Your task to perform on an android device: Search for pizza restaurants on Maps Image 0: 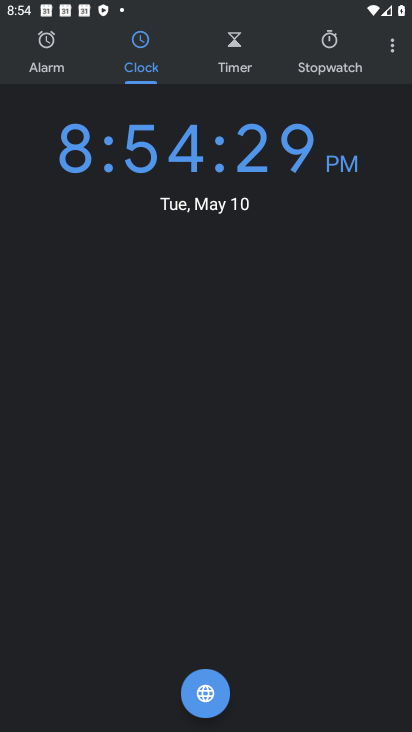
Step 0: press home button
Your task to perform on an android device: Search for pizza restaurants on Maps Image 1: 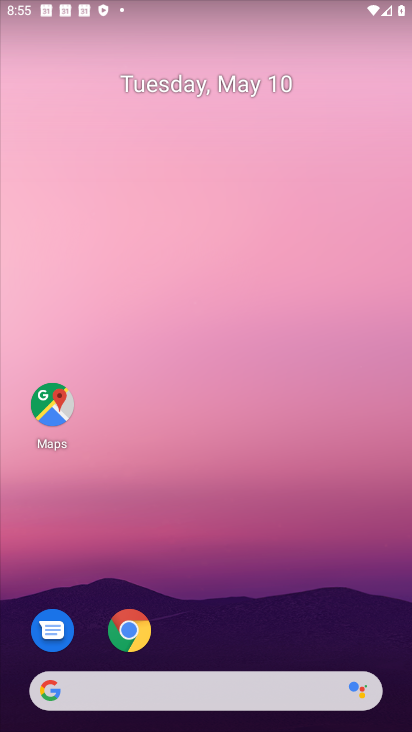
Step 1: click (59, 425)
Your task to perform on an android device: Search for pizza restaurants on Maps Image 2: 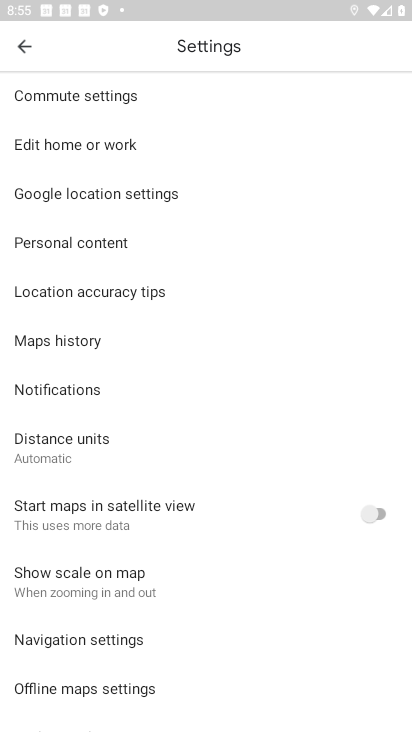
Step 2: click (27, 43)
Your task to perform on an android device: Search for pizza restaurants on Maps Image 3: 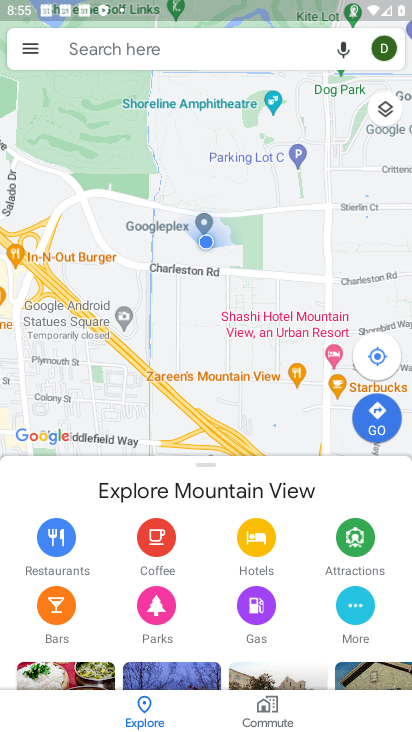
Step 3: click (208, 45)
Your task to perform on an android device: Search for pizza restaurants on Maps Image 4: 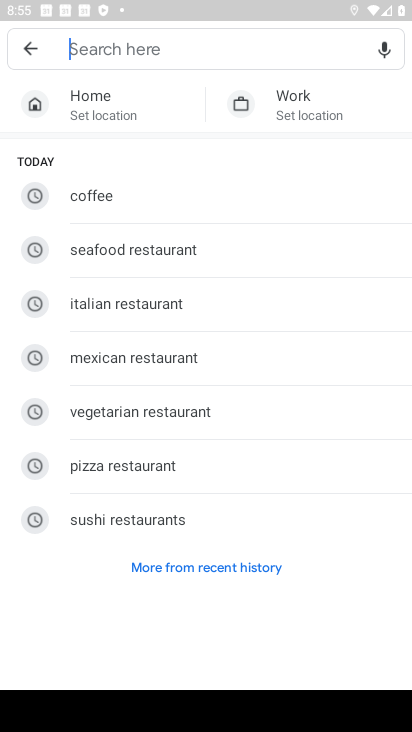
Step 4: click (112, 465)
Your task to perform on an android device: Search for pizza restaurants on Maps Image 5: 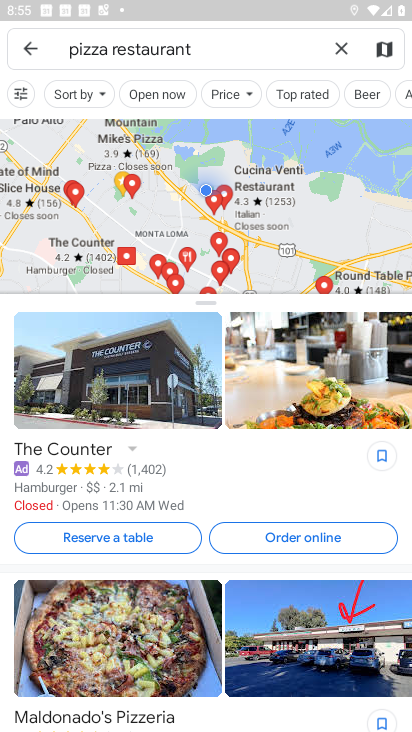
Step 5: task complete